Your task to perform on an android device: open chrome and create a bookmark for the current page Image 0: 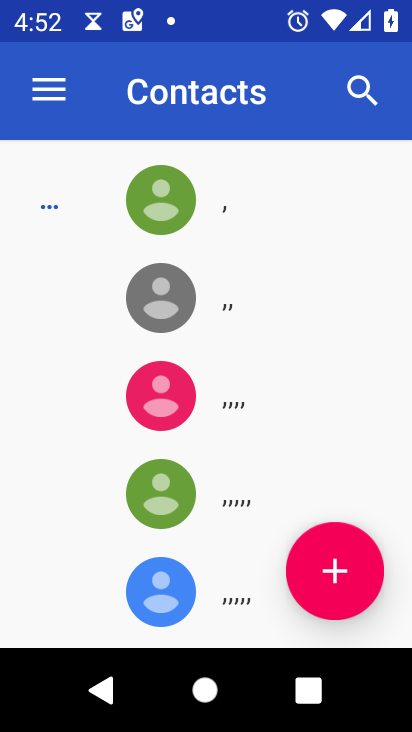
Step 0: press home button
Your task to perform on an android device: open chrome and create a bookmark for the current page Image 1: 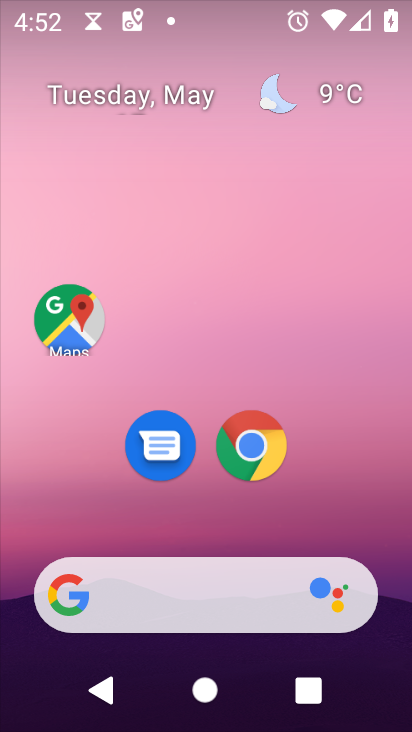
Step 1: drag from (253, 616) to (251, 180)
Your task to perform on an android device: open chrome and create a bookmark for the current page Image 2: 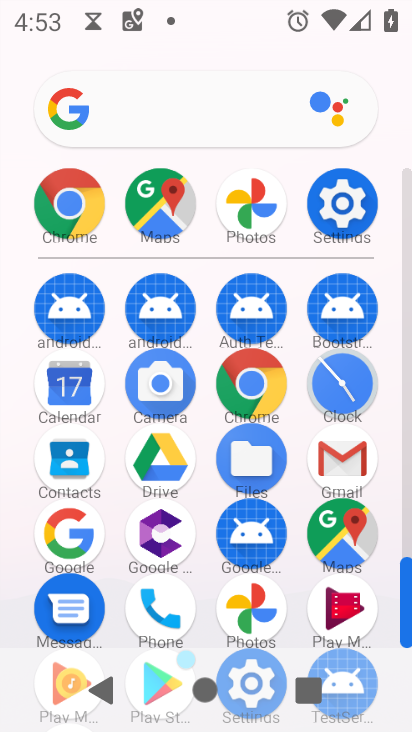
Step 2: click (245, 365)
Your task to perform on an android device: open chrome and create a bookmark for the current page Image 3: 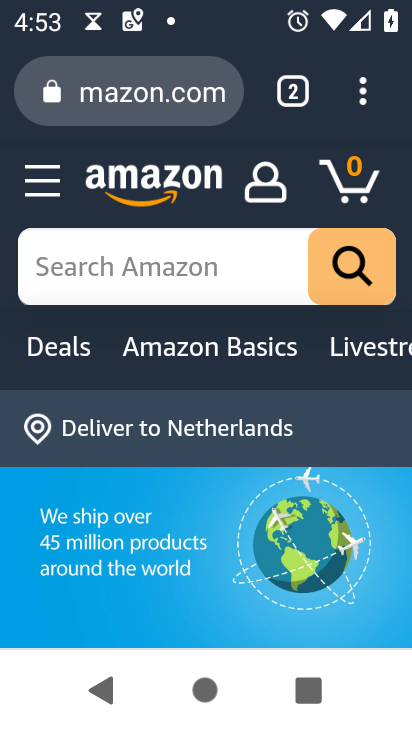
Step 3: click (354, 96)
Your task to perform on an android device: open chrome and create a bookmark for the current page Image 4: 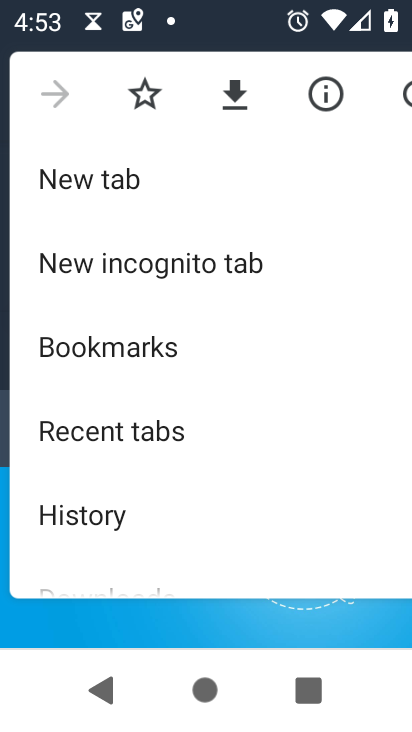
Step 4: drag from (264, 564) to (233, 80)
Your task to perform on an android device: open chrome and create a bookmark for the current page Image 5: 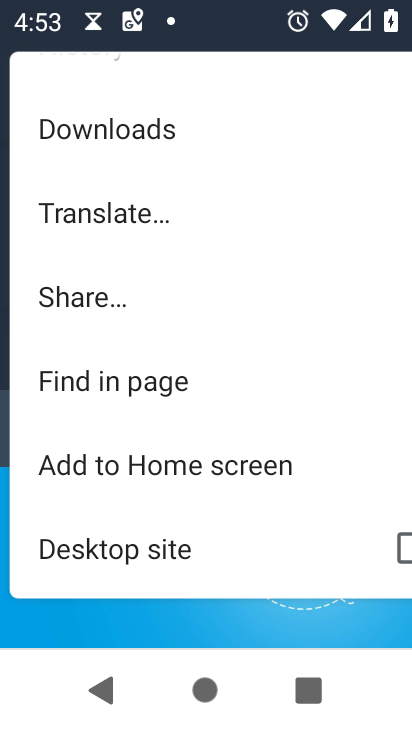
Step 5: drag from (152, 255) to (199, 564)
Your task to perform on an android device: open chrome and create a bookmark for the current page Image 6: 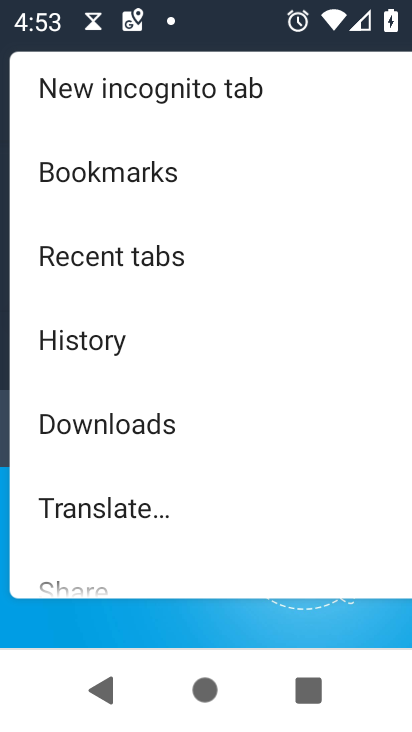
Step 6: click (144, 167)
Your task to perform on an android device: open chrome and create a bookmark for the current page Image 7: 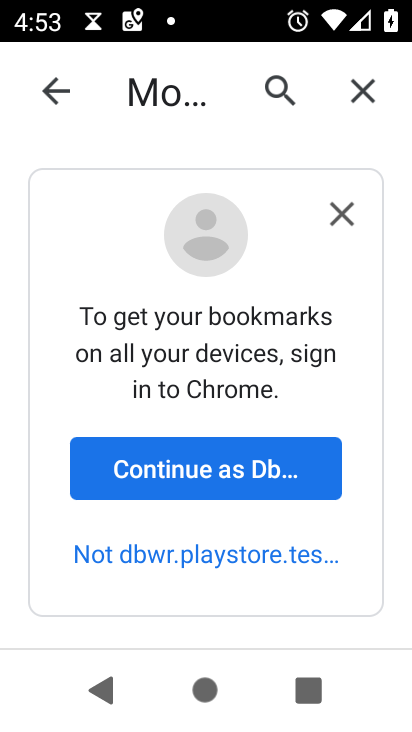
Step 7: task complete